Your task to perform on an android device: Do I have any events tomorrow? Image 0: 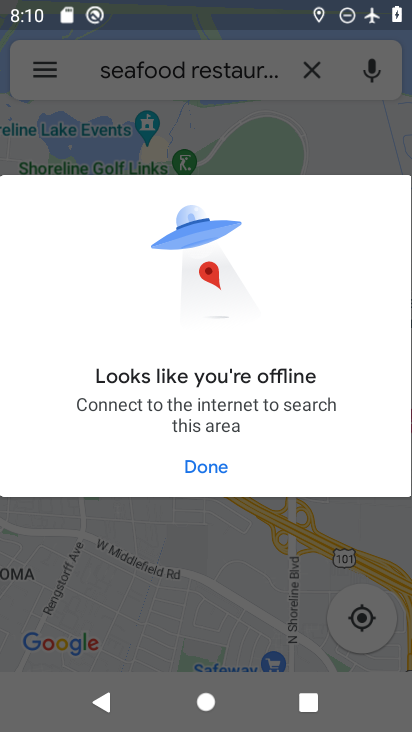
Step 0: press home button
Your task to perform on an android device: Do I have any events tomorrow? Image 1: 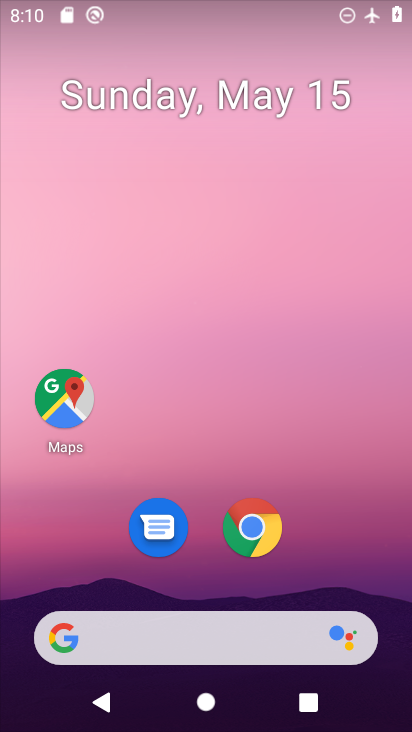
Step 1: drag from (210, 588) to (211, 177)
Your task to perform on an android device: Do I have any events tomorrow? Image 2: 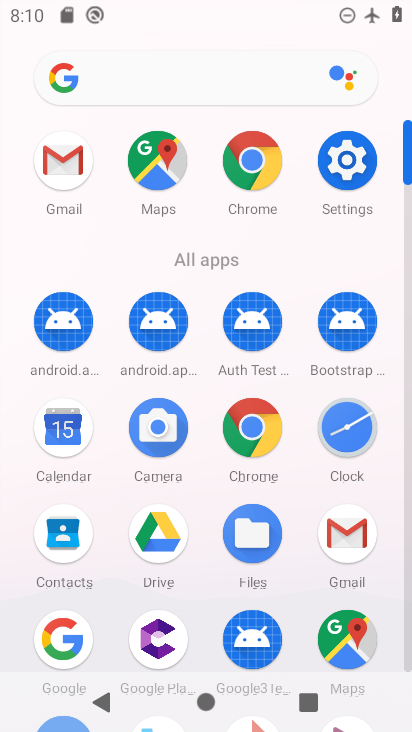
Step 2: click (54, 441)
Your task to perform on an android device: Do I have any events tomorrow? Image 3: 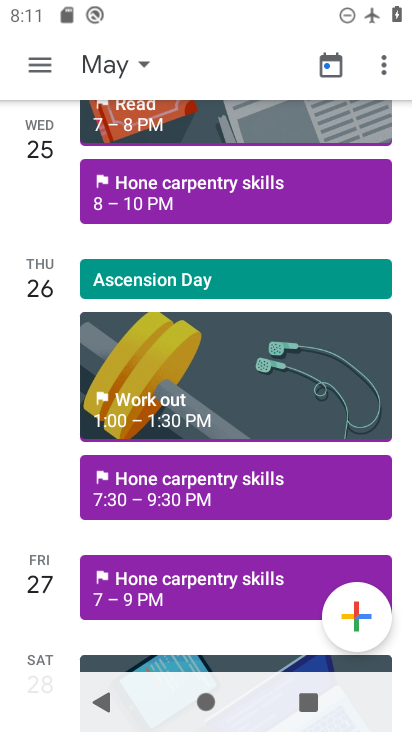
Step 3: drag from (161, 173) to (192, 577)
Your task to perform on an android device: Do I have any events tomorrow? Image 4: 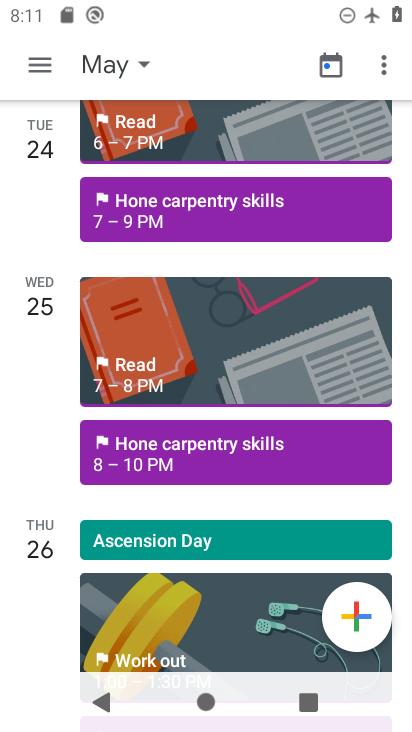
Step 4: click (121, 56)
Your task to perform on an android device: Do I have any events tomorrow? Image 5: 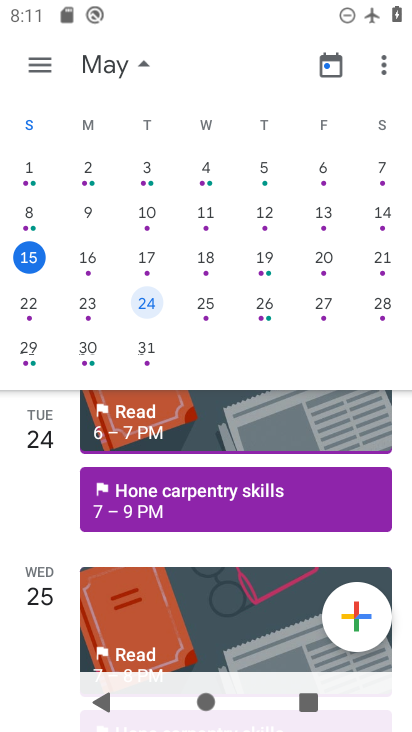
Step 5: click (133, 235)
Your task to perform on an android device: Do I have any events tomorrow? Image 6: 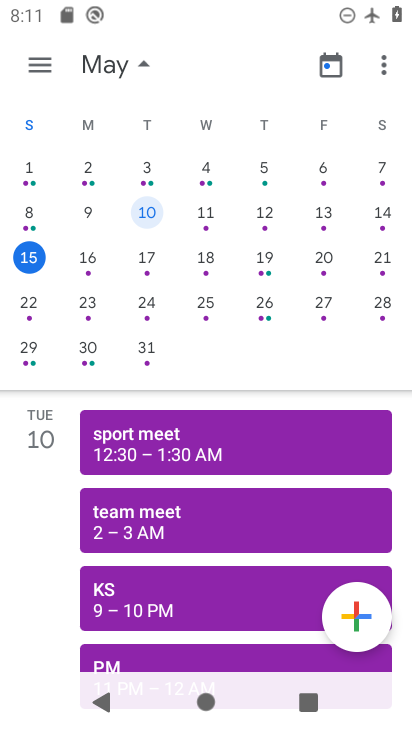
Step 6: click (147, 249)
Your task to perform on an android device: Do I have any events tomorrow? Image 7: 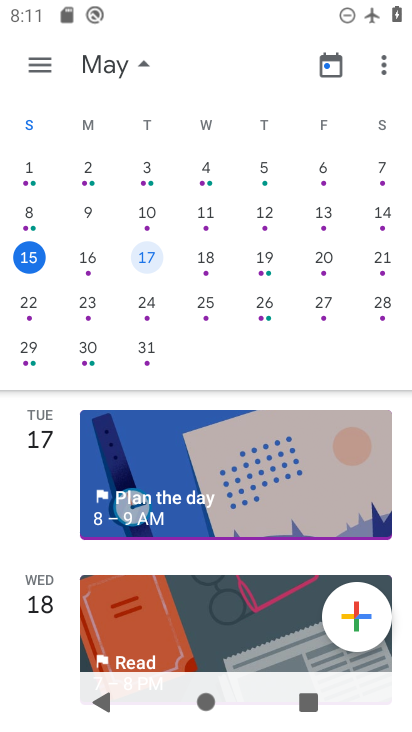
Step 7: click (86, 263)
Your task to perform on an android device: Do I have any events tomorrow? Image 8: 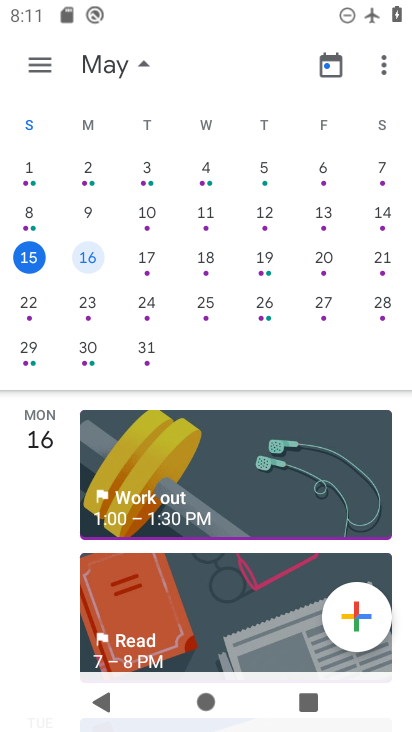
Step 8: task complete